Your task to perform on an android device: open the mobile data screen to see how much data has been used Image 0: 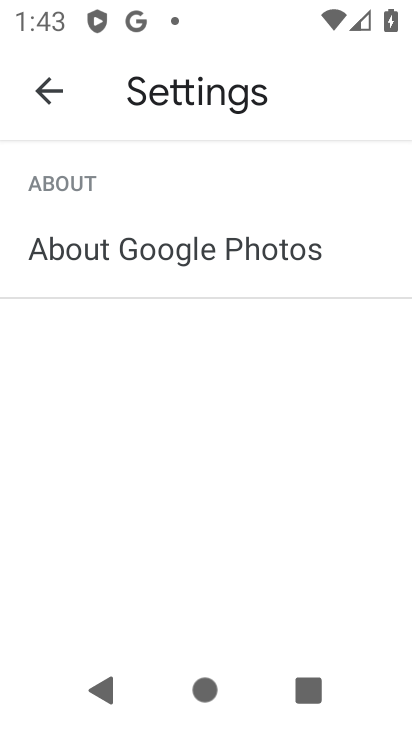
Step 0: press home button
Your task to perform on an android device: open the mobile data screen to see how much data has been used Image 1: 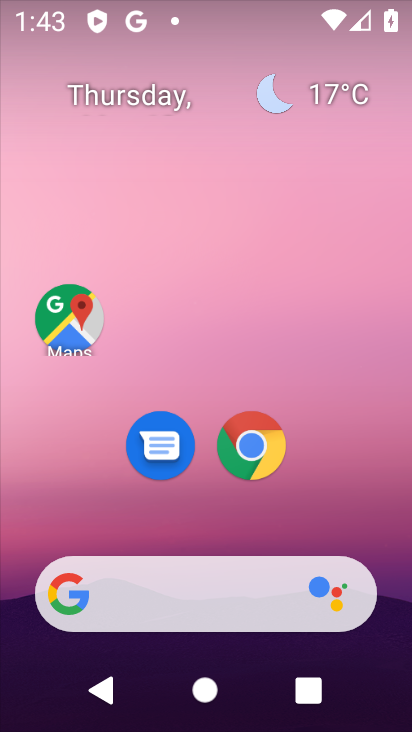
Step 1: drag from (328, 483) to (223, 164)
Your task to perform on an android device: open the mobile data screen to see how much data has been used Image 2: 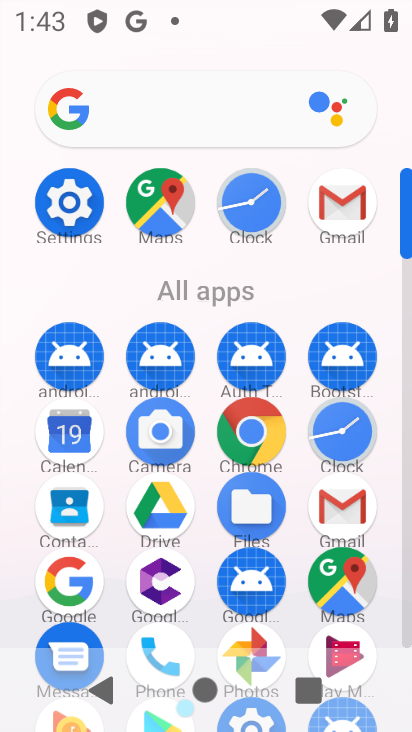
Step 2: click (72, 197)
Your task to perform on an android device: open the mobile data screen to see how much data has been used Image 3: 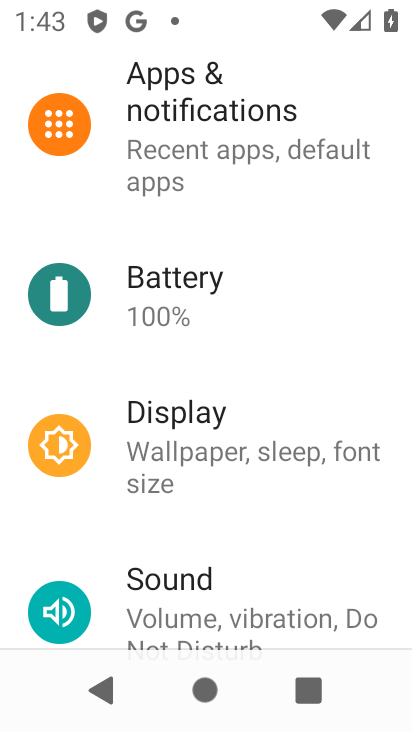
Step 3: drag from (273, 206) to (220, 455)
Your task to perform on an android device: open the mobile data screen to see how much data has been used Image 4: 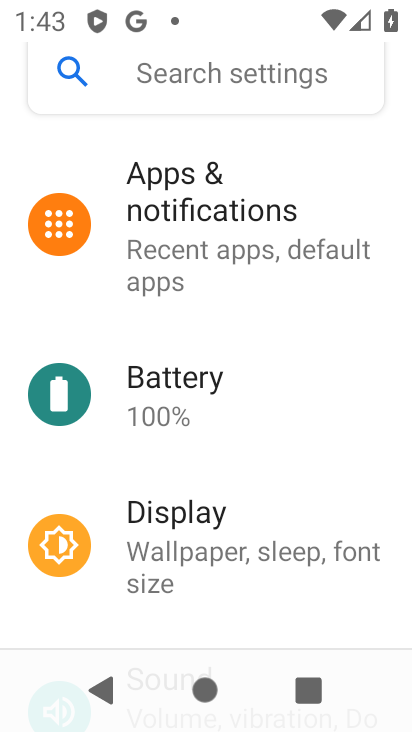
Step 4: drag from (177, 308) to (60, 651)
Your task to perform on an android device: open the mobile data screen to see how much data has been used Image 5: 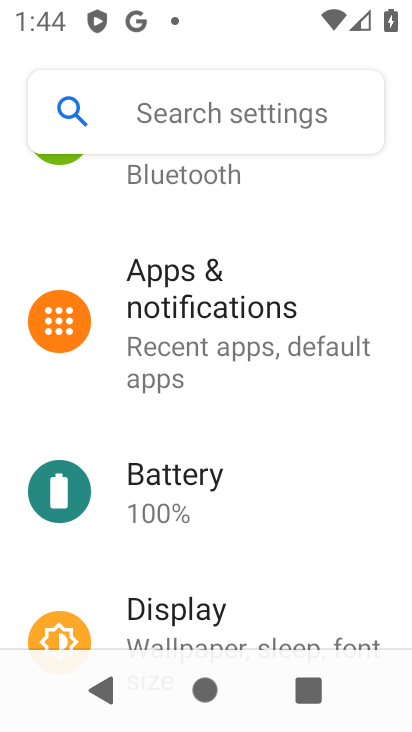
Step 5: drag from (260, 218) to (150, 520)
Your task to perform on an android device: open the mobile data screen to see how much data has been used Image 6: 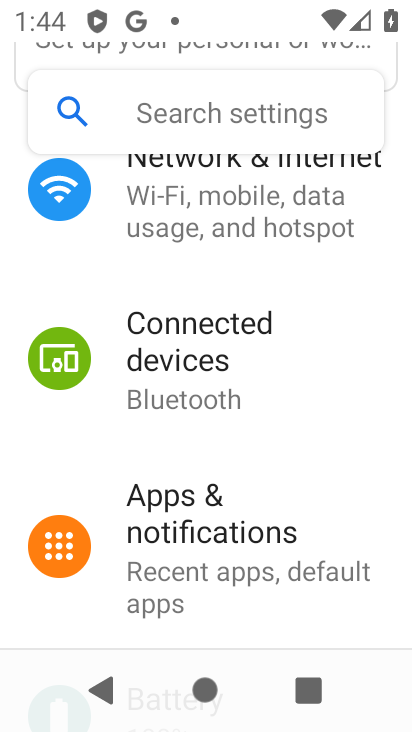
Step 6: drag from (232, 282) to (211, 524)
Your task to perform on an android device: open the mobile data screen to see how much data has been used Image 7: 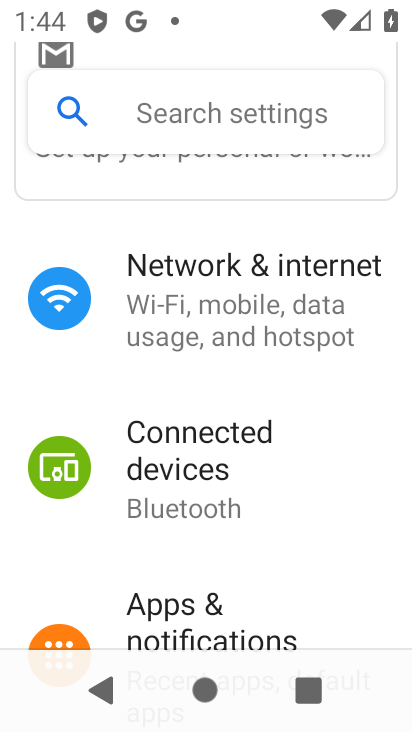
Step 7: click (218, 269)
Your task to perform on an android device: open the mobile data screen to see how much data has been used Image 8: 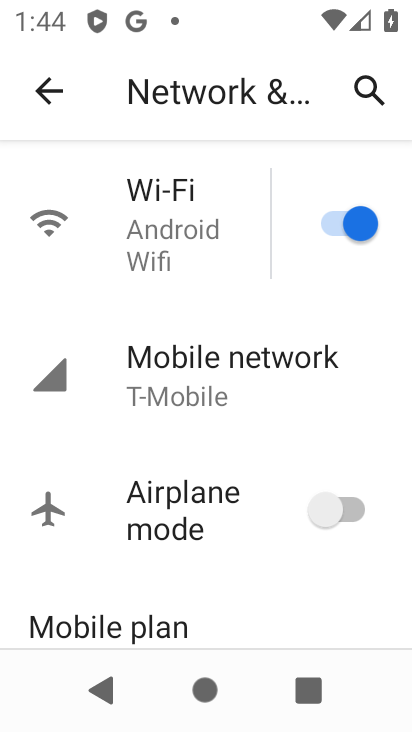
Step 8: click (186, 368)
Your task to perform on an android device: open the mobile data screen to see how much data has been used Image 9: 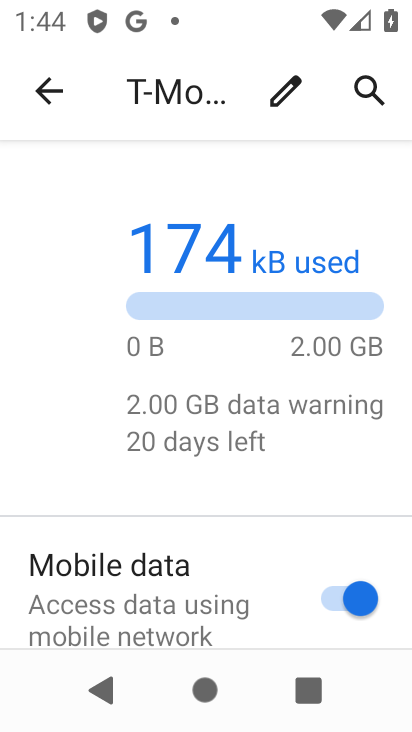
Step 9: task complete